Your task to perform on an android device: search for starred emails in the gmail app Image 0: 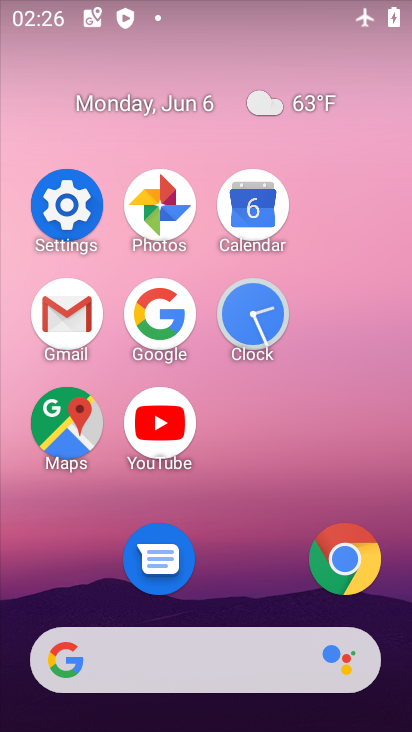
Step 0: click (84, 314)
Your task to perform on an android device: search for starred emails in the gmail app Image 1: 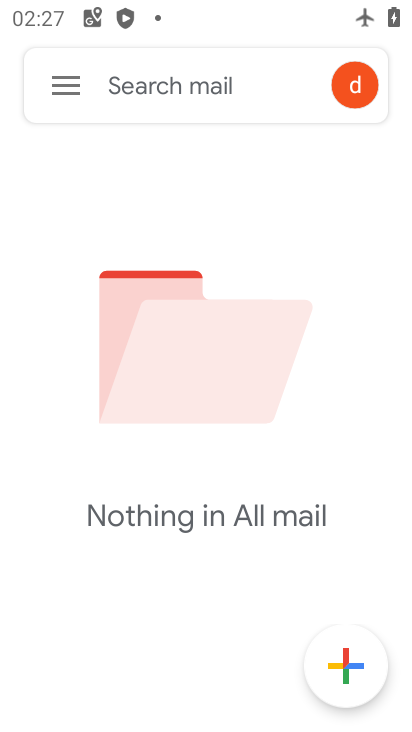
Step 1: click (56, 80)
Your task to perform on an android device: search for starred emails in the gmail app Image 2: 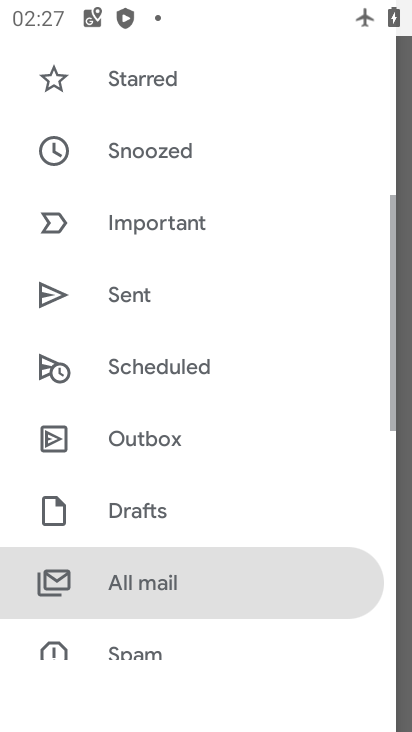
Step 2: click (205, 75)
Your task to perform on an android device: search for starred emails in the gmail app Image 3: 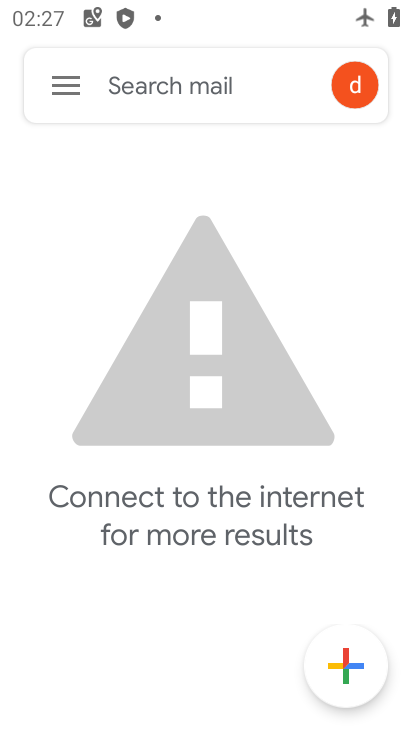
Step 3: task complete